Your task to perform on an android device: open app "Gmail" Image 0: 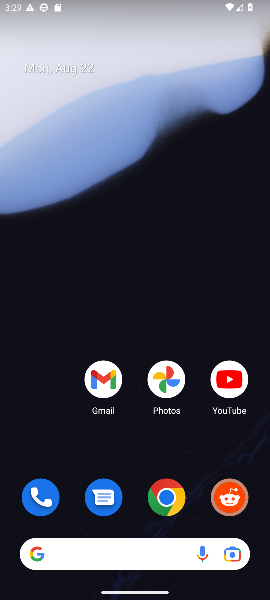
Step 0: drag from (141, 455) to (157, 108)
Your task to perform on an android device: open app "Gmail" Image 1: 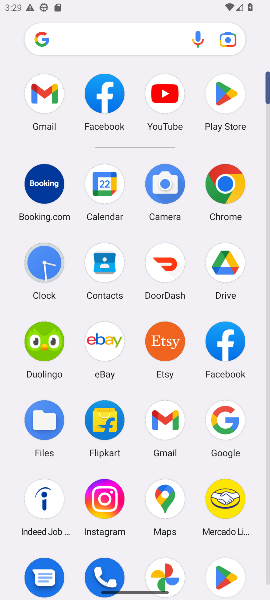
Step 1: click (220, 97)
Your task to perform on an android device: open app "Gmail" Image 2: 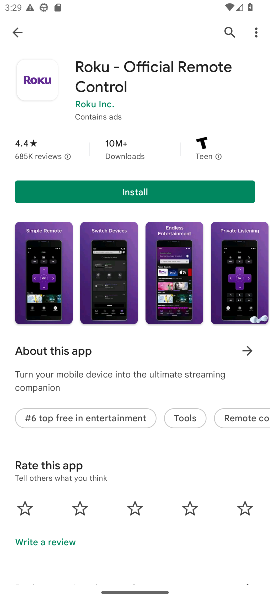
Step 2: click (235, 35)
Your task to perform on an android device: open app "Gmail" Image 3: 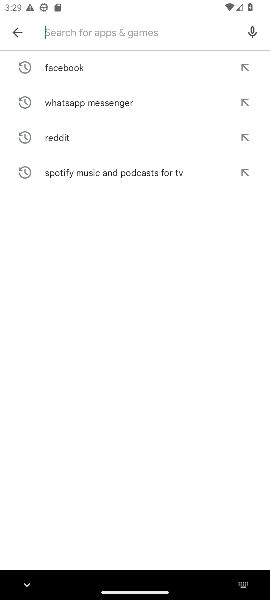
Step 3: type "Gmail"
Your task to perform on an android device: open app "Gmail" Image 4: 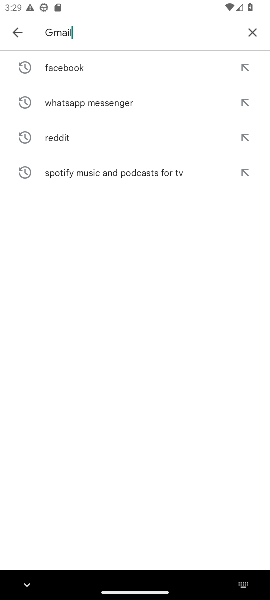
Step 4: type ""
Your task to perform on an android device: open app "Gmail" Image 5: 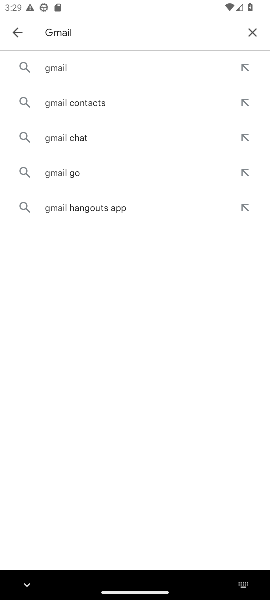
Step 5: click (84, 60)
Your task to perform on an android device: open app "Gmail" Image 6: 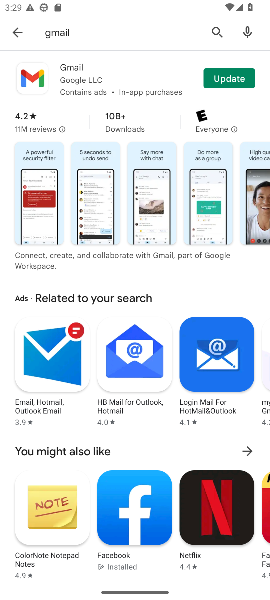
Step 6: click (116, 70)
Your task to perform on an android device: open app "Gmail" Image 7: 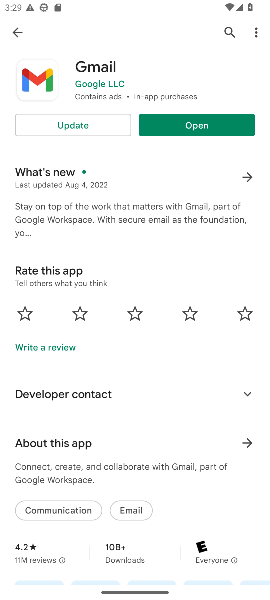
Step 7: click (231, 129)
Your task to perform on an android device: open app "Gmail" Image 8: 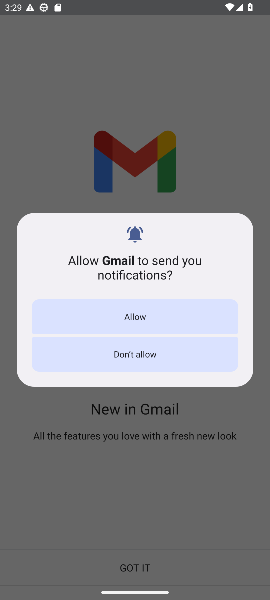
Step 8: click (209, 316)
Your task to perform on an android device: open app "Gmail" Image 9: 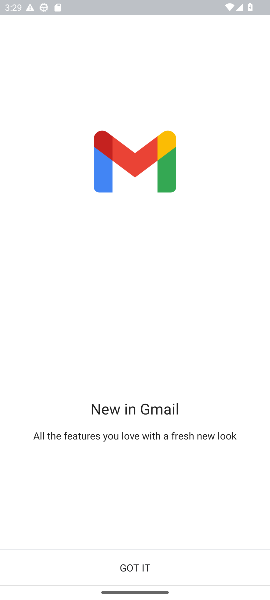
Step 9: click (144, 553)
Your task to perform on an android device: open app "Gmail" Image 10: 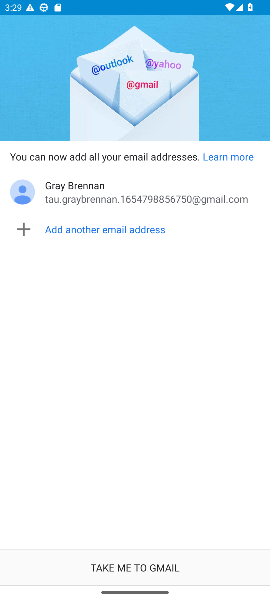
Step 10: click (200, 561)
Your task to perform on an android device: open app "Gmail" Image 11: 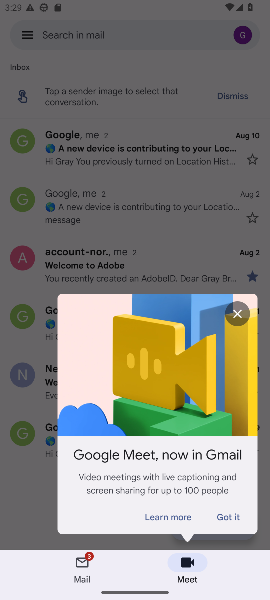
Step 11: task complete